Your task to perform on an android device: open a new tab in the chrome app Image 0: 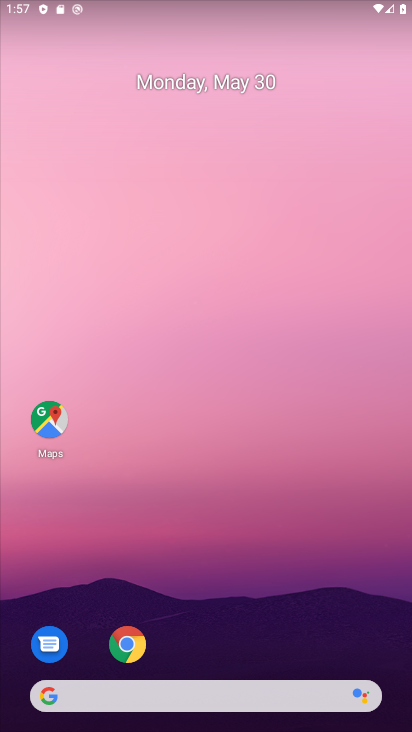
Step 0: click (129, 647)
Your task to perform on an android device: open a new tab in the chrome app Image 1: 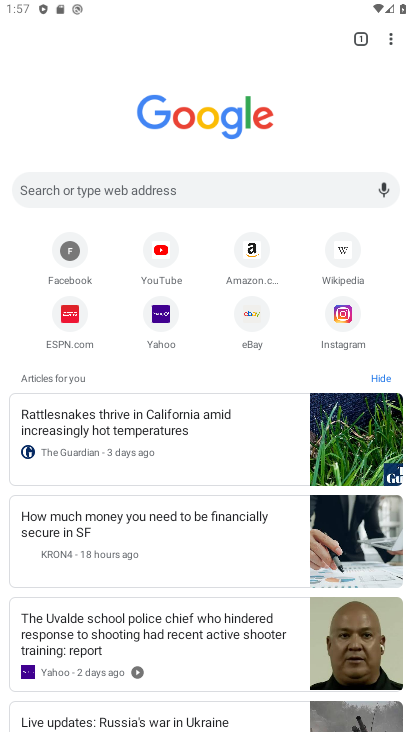
Step 1: click (358, 38)
Your task to perform on an android device: open a new tab in the chrome app Image 2: 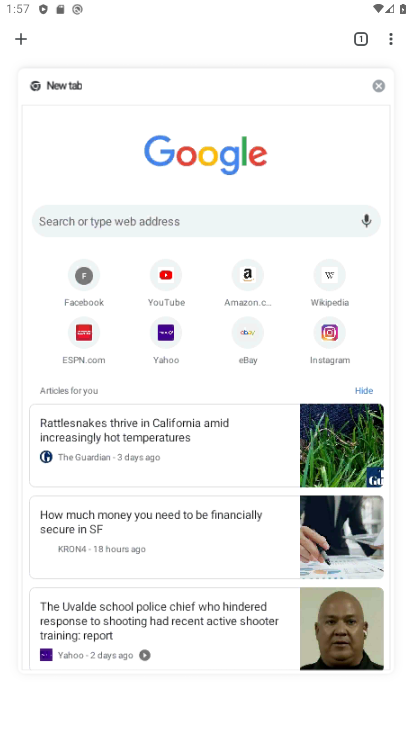
Step 2: click (20, 47)
Your task to perform on an android device: open a new tab in the chrome app Image 3: 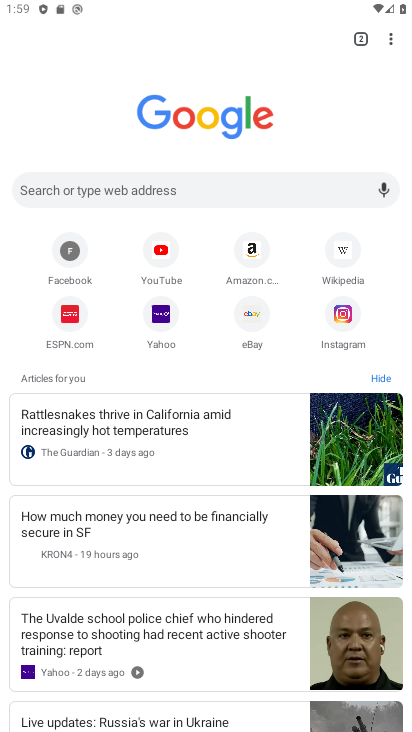
Step 3: task complete